Your task to perform on an android device: Search for Italian restaurants on Maps Image 0: 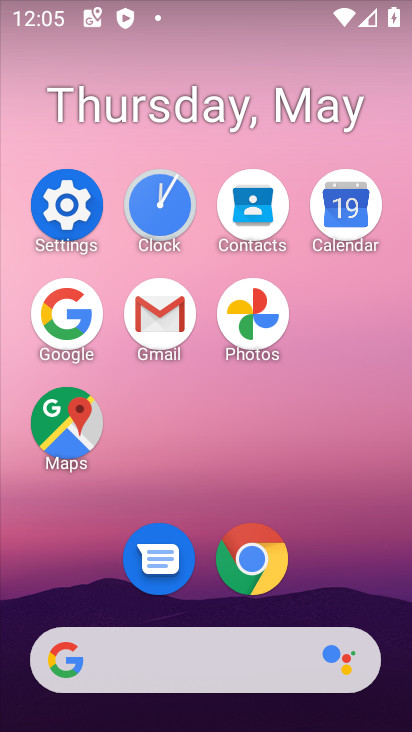
Step 0: click (79, 442)
Your task to perform on an android device: Search for Italian restaurants on Maps Image 1: 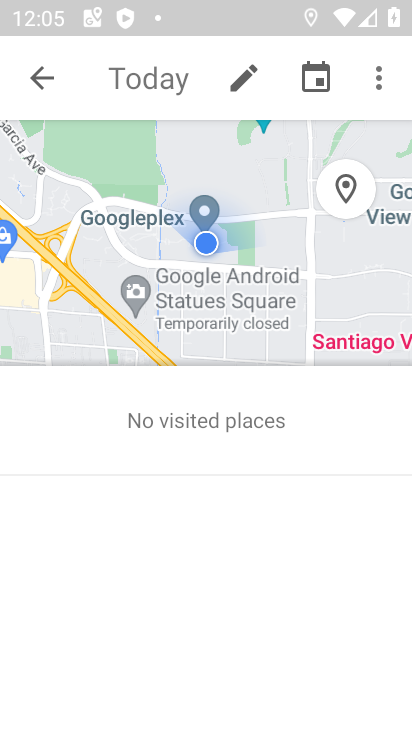
Step 1: click (26, 67)
Your task to perform on an android device: Search for Italian restaurants on Maps Image 2: 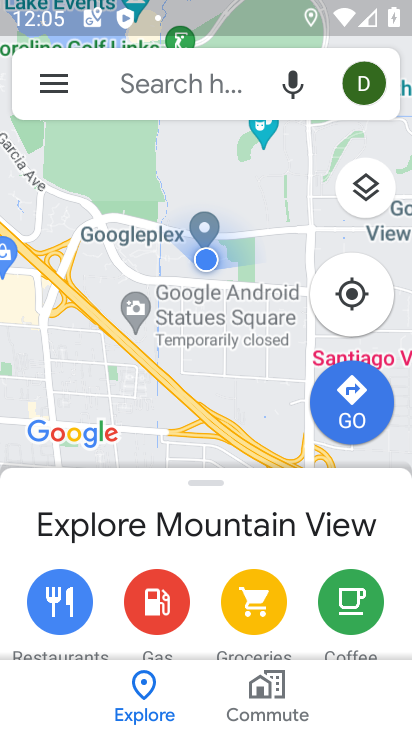
Step 2: click (192, 85)
Your task to perform on an android device: Search for Italian restaurants on Maps Image 3: 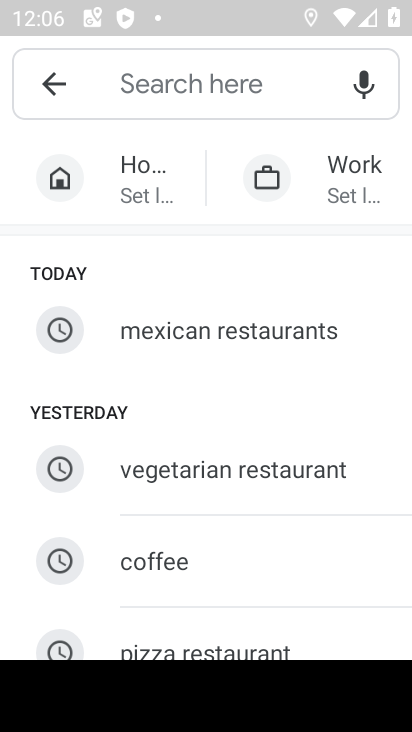
Step 3: drag from (274, 566) to (261, 263)
Your task to perform on an android device: Search for Italian restaurants on Maps Image 4: 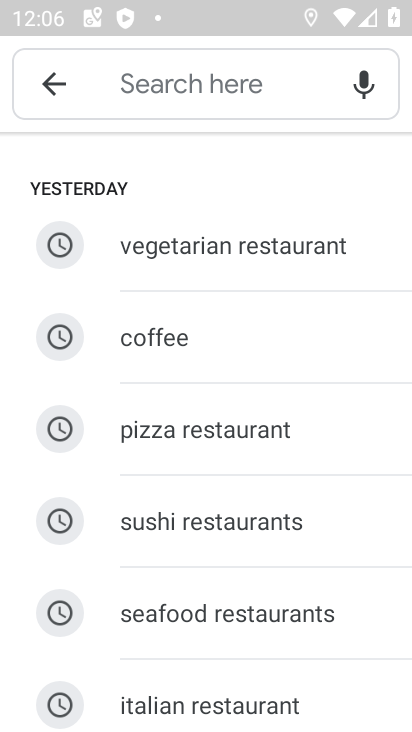
Step 4: click (245, 676)
Your task to perform on an android device: Search for Italian restaurants on Maps Image 5: 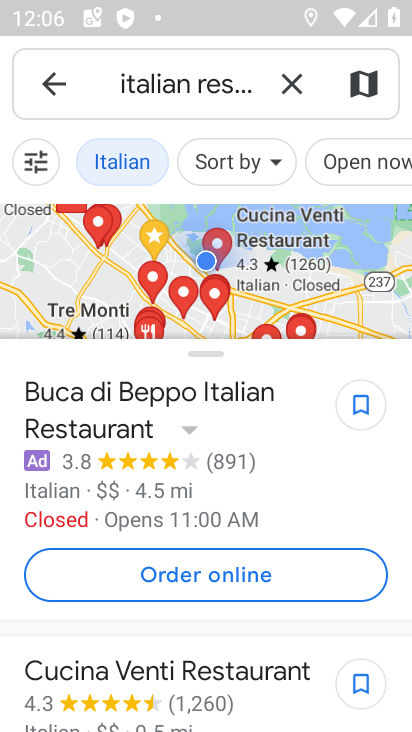
Step 5: task complete